Your task to perform on an android device: Open location settings Image 0: 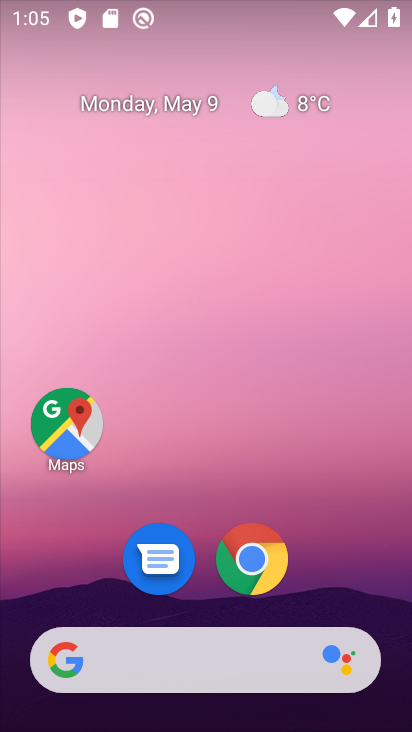
Step 0: drag from (344, 493) to (217, 26)
Your task to perform on an android device: Open location settings Image 1: 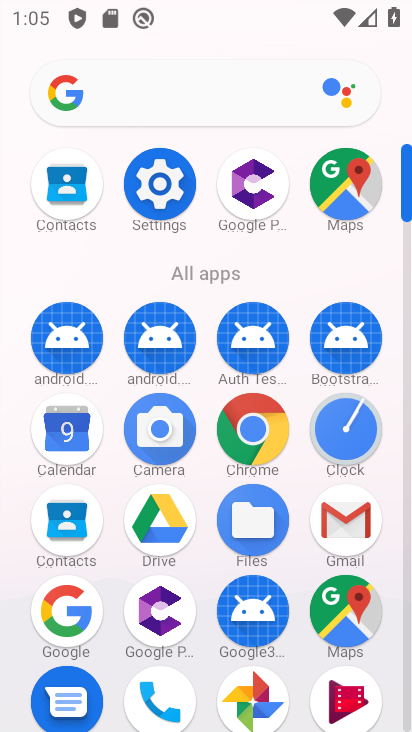
Step 1: click (163, 190)
Your task to perform on an android device: Open location settings Image 2: 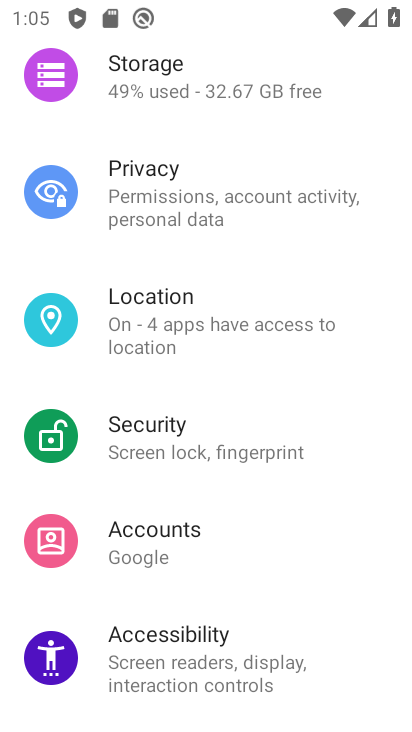
Step 2: click (150, 302)
Your task to perform on an android device: Open location settings Image 3: 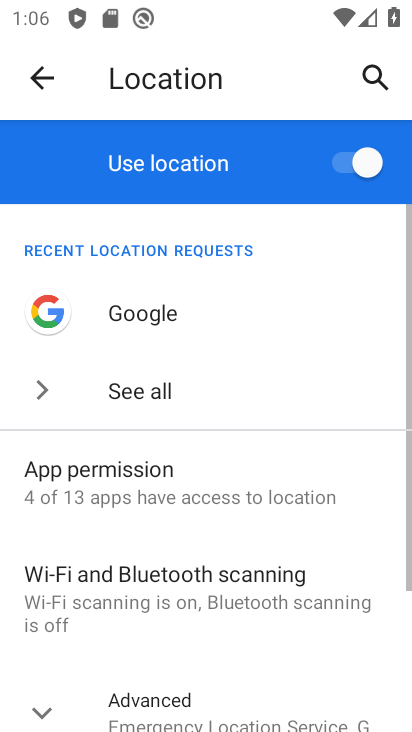
Step 3: task complete